Your task to perform on an android device: turn smart compose on in the gmail app Image 0: 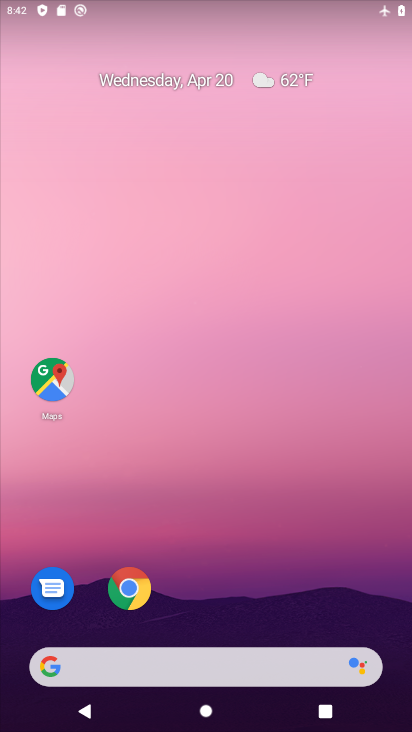
Step 0: drag from (300, 553) to (117, 22)
Your task to perform on an android device: turn smart compose on in the gmail app Image 1: 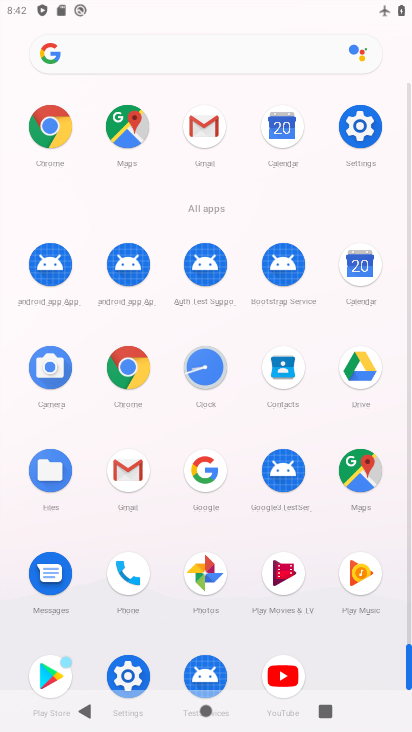
Step 1: click (125, 469)
Your task to perform on an android device: turn smart compose on in the gmail app Image 2: 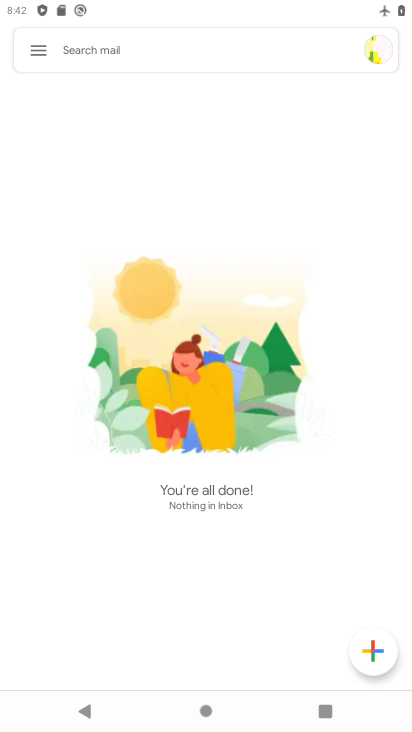
Step 2: click (38, 44)
Your task to perform on an android device: turn smart compose on in the gmail app Image 3: 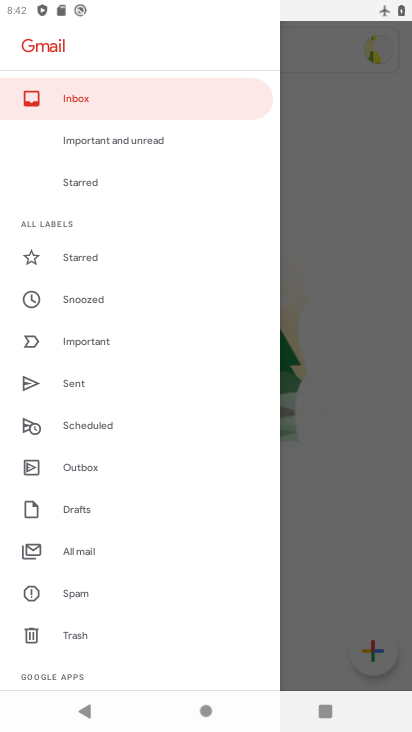
Step 3: drag from (154, 594) to (135, 156)
Your task to perform on an android device: turn smart compose on in the gmail app Image 4: 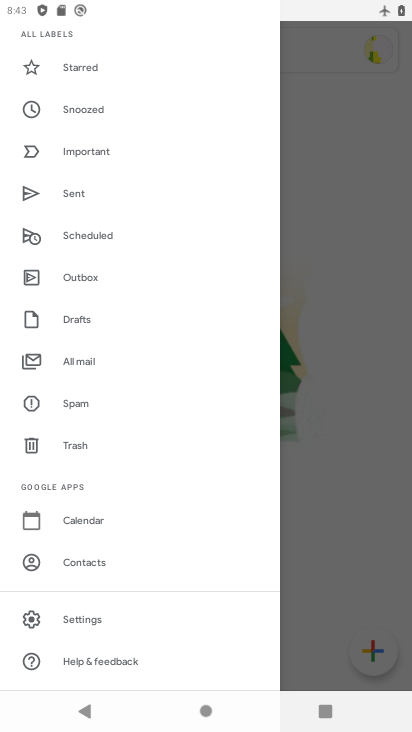
Step 4: click (94, 616)
Your task to perform on an android device: turn smart compose on in the gmail app Image 5: 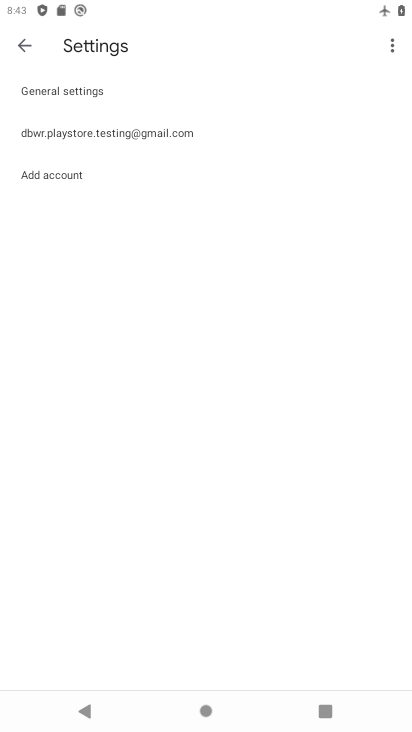
Step 5: click (175, 133)
Your task to perform on an android device: turn smart compose on in the gmail app Image 6: 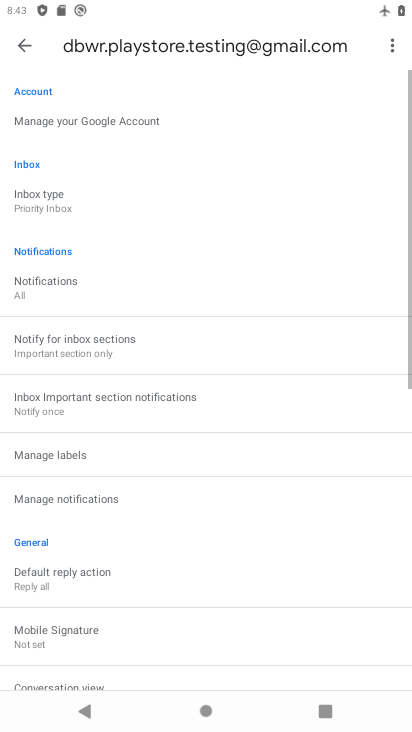
Step 6: task complete